Your task to perform on an android device: Go to Google Image 0: 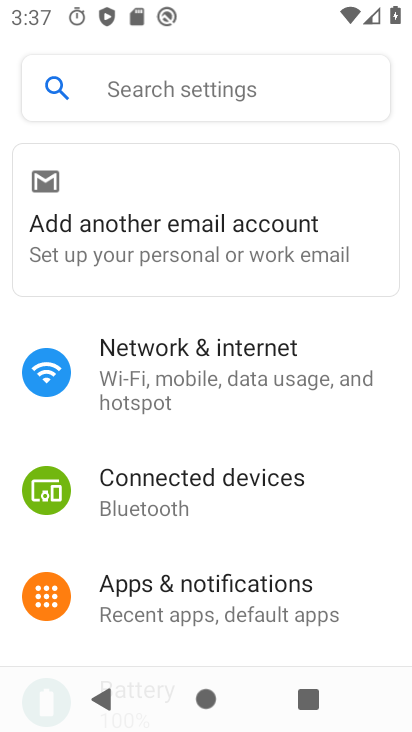
Step 0: press back button
Your task to perform on an android device: Go to Google Image 1: 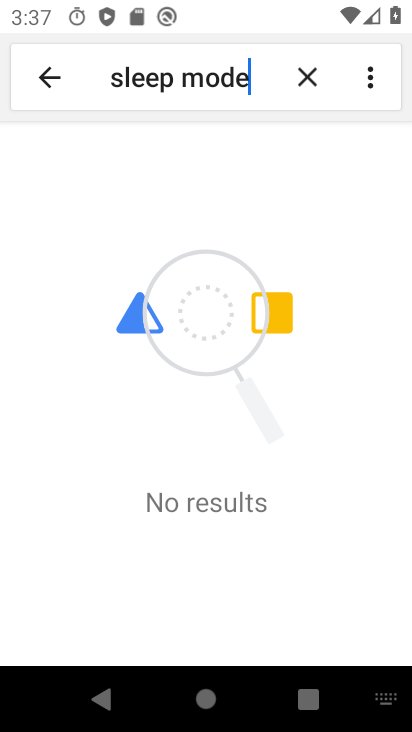
Step 1: press back button
Your task to perform on an android device: Go to Google Image 2: 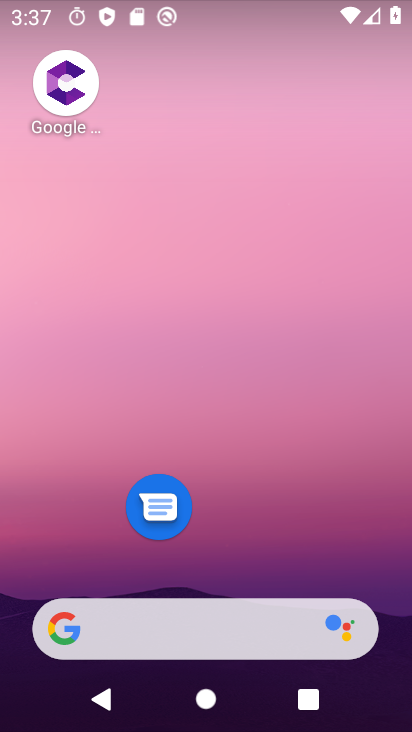
Step 2: drag from (270, 546) to (300, 175)
Your task to perform on an android device: Go to Google Image 3: 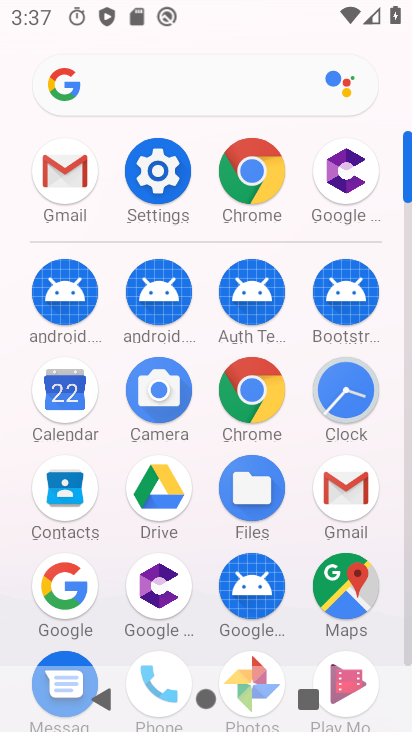
Step 3: click (71, 577)
Your task to perform on an android device: Go to Google Image 4: 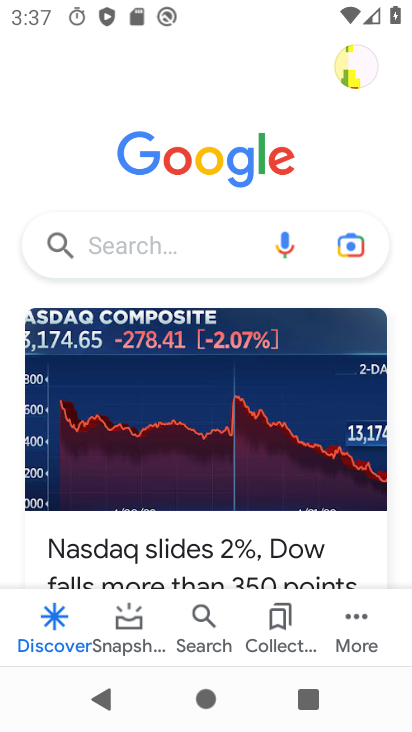
Step 4: task complete